Your task to perform on an android device: When is my next appointment? Image 0: 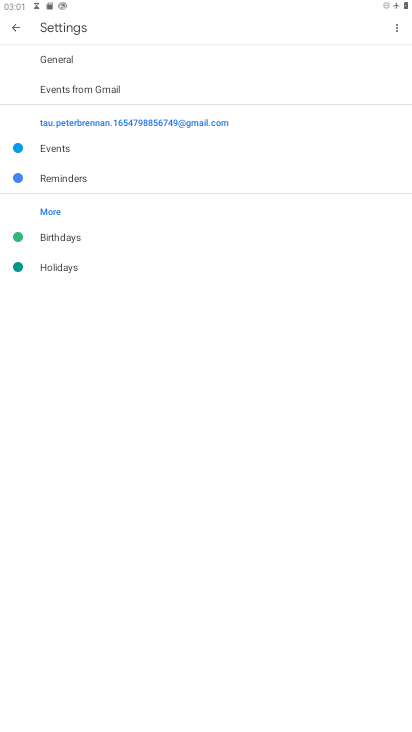
Step 0: press home button
Your task to perform on an android device: When is my next appointment? Image 1: 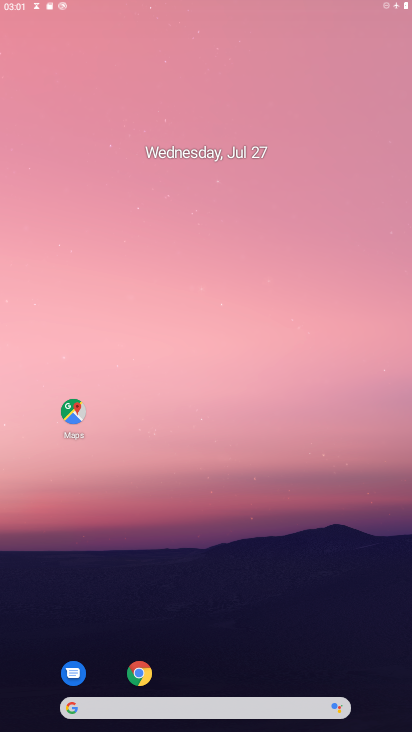
Step 1: drag from (194, 580) to (195, 203)
Your task to perform on an android device: When is my next appointment? Image 2: 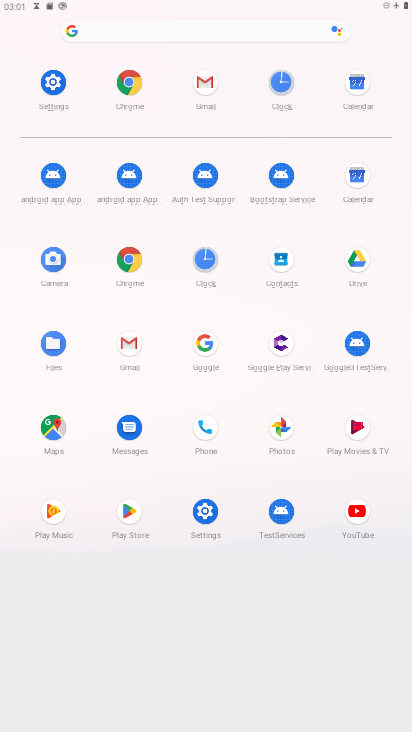
Step 2: click (354, 75)
Your task to perform on an android device: When is my next appointment? Image 3: 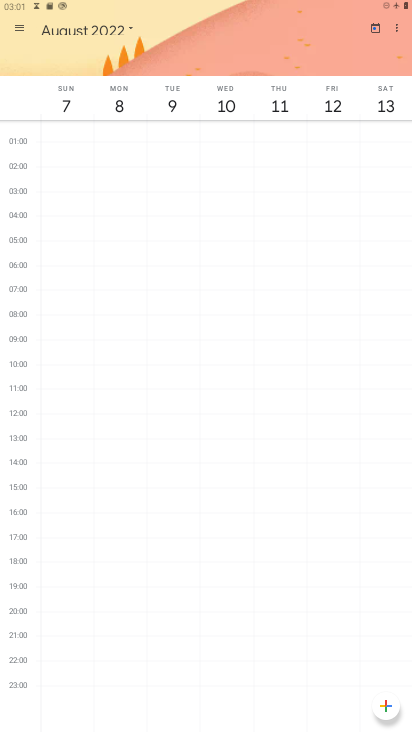
Step 3: click (24, 30)
Your task to perform on an android device: When is my next appointment? Image 4: 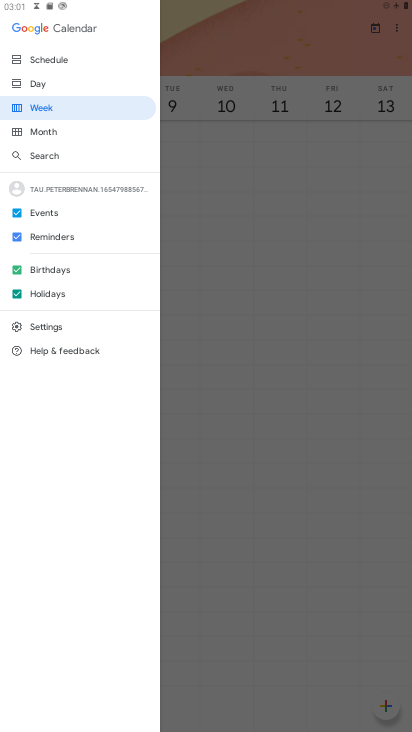
Step 4: click (64, 128)
Your task to perform on an android device: When is my next appointment? Image 5: 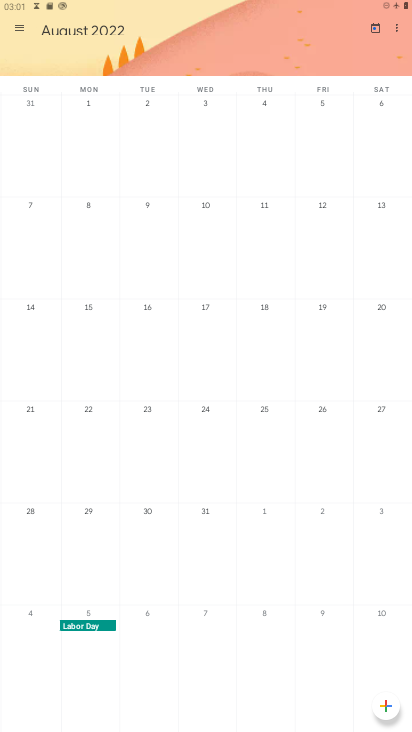
Step 5: drag from (39, 247) to (367, 248)
Your task to perform on an android device: When is my next appointment? Image 6: 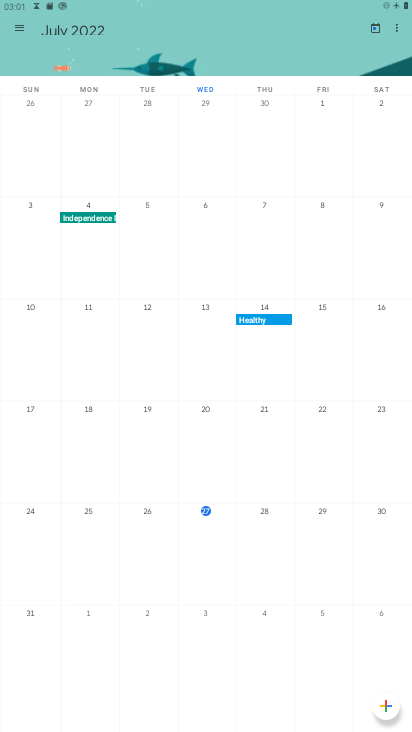
Step 6: click (269, 522)
Your task to perform on an android device: When is my next appointment? Image 7: 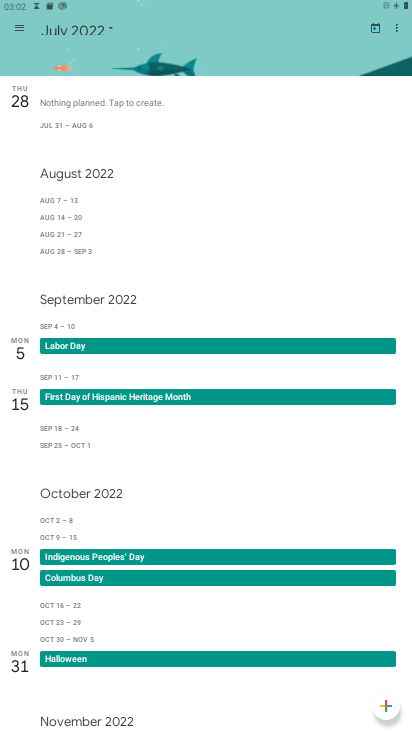
Step 7: task complete